Your task to perform on an android device: open a bookmark in the chrome app Image 0: 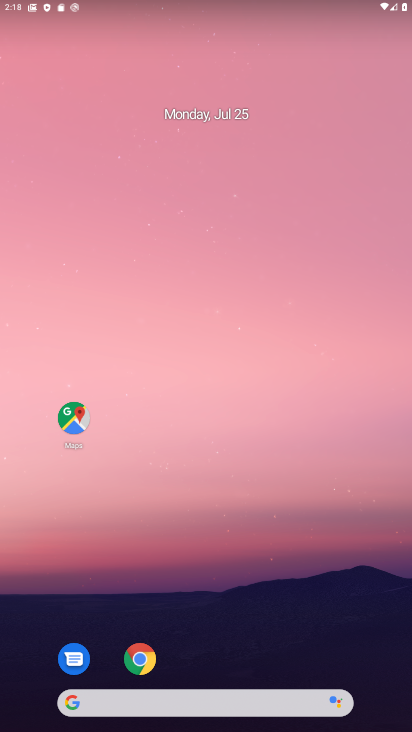
Step 0: click (143, 671)
Your task to perform on an android device: open a bookmark in the chrome app Image 1: 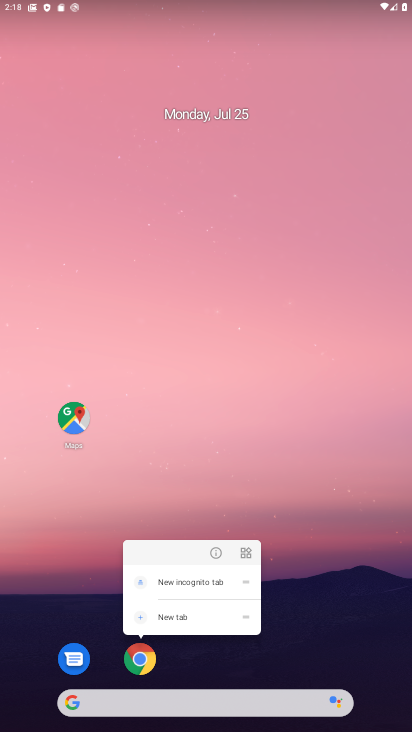
Step 1: click (143, 661)
Your task to perform on an android device: open a bookmark in the chrome app Image 2: 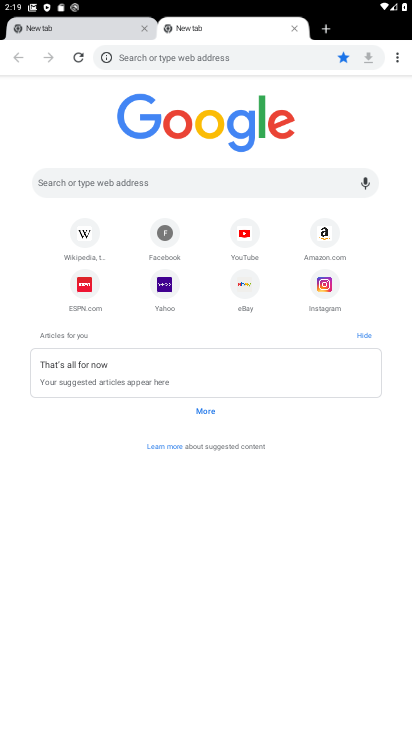
Step 2: click (398, 60)
Your task to perform on an android device: open a bookmark in the chrome app Image 3: 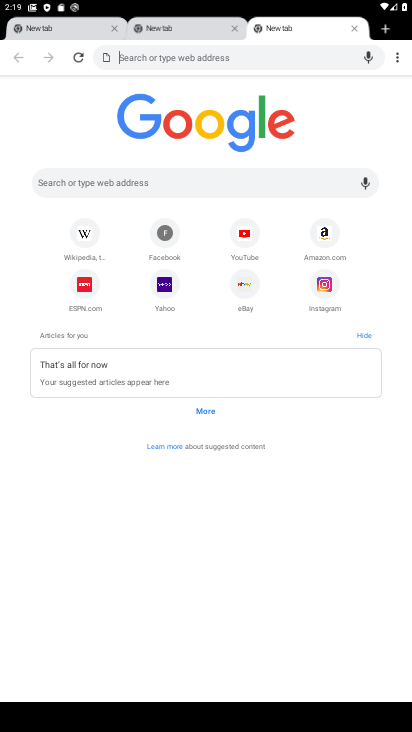
Step 3: click (395, 58)
Your task to perform on an android device: open a bookmark in the chrome app Image 4: 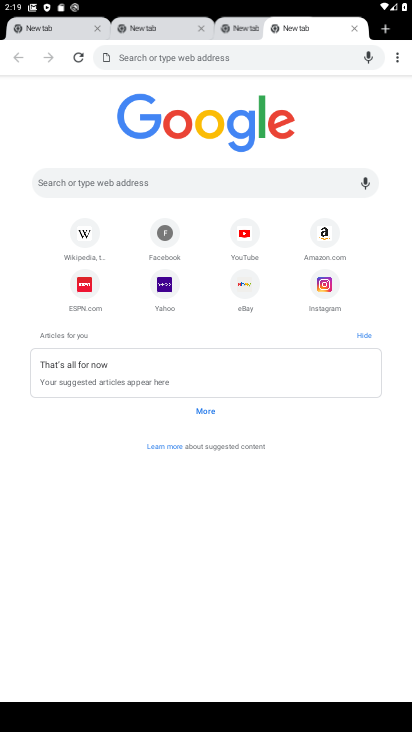
Step 4: click (390, 58)
Your task to perform on an android device: open a bookmark in the chrome app Image 5: 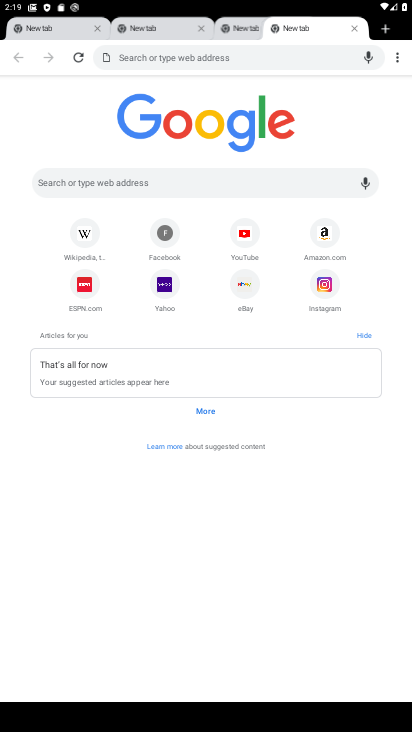
Step 5: click (393, 58)
Your task to perform on an android device: open a bookmark in the chrome app Image 6: 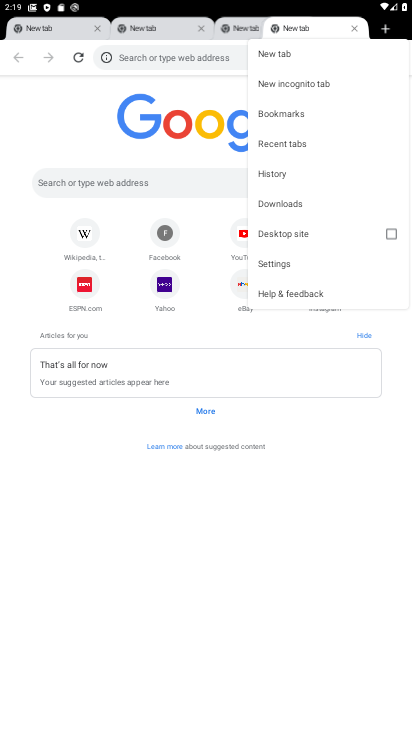
Step 6: click (301, 111)
Your task to perform on an android device: open a bookmark in the chrome app Image 7: 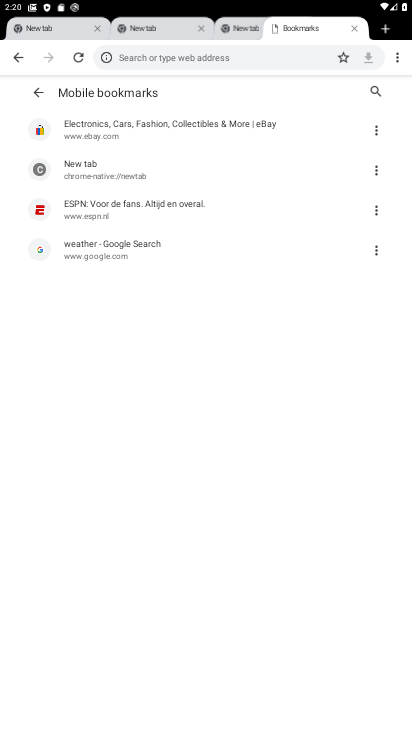
Step 7: task complete